Your task to perform on an android device: find snoozed emails in the gmail app Image 0: 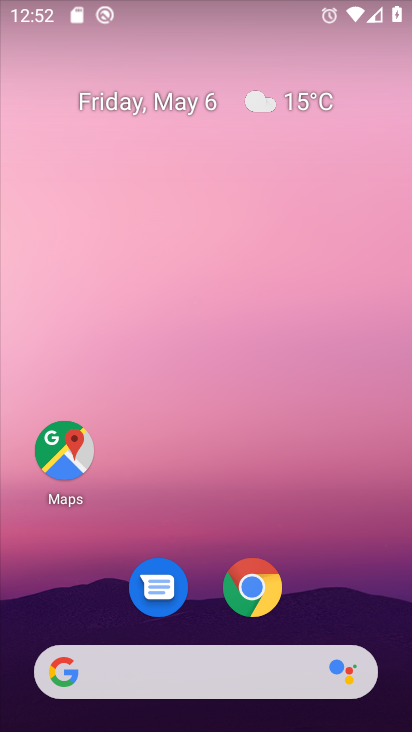
Step 0: drag from (325, 476) to (264, 41)
Your task to perform on an android device: find snoozed emails in the gmail app Image 1: 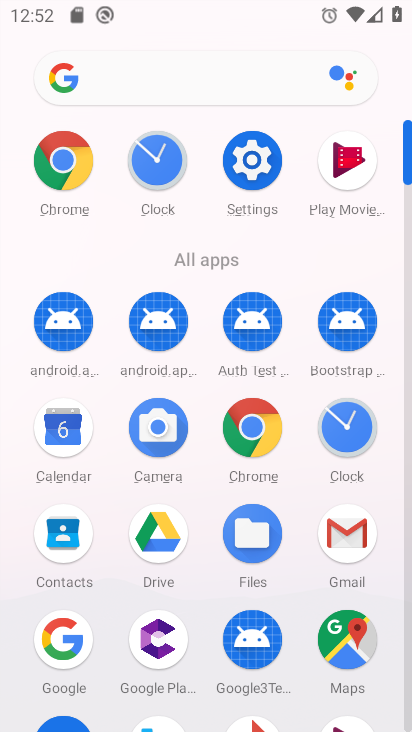
Step 1: click (340, 542)
Your task to perform on an android device: find snoozed emails in the gmail app Image 2: 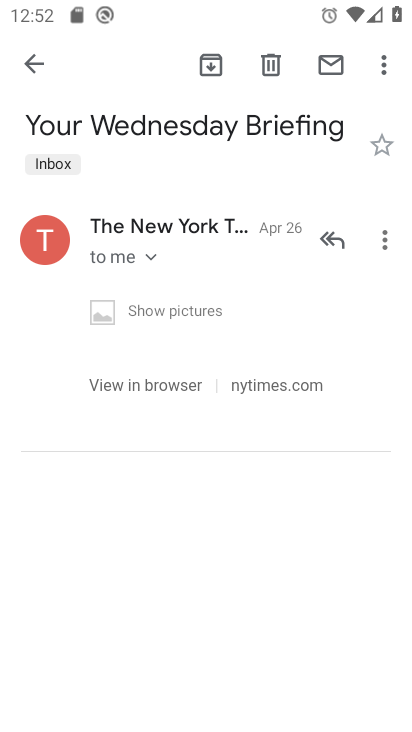
Step 2: click (35, 60)
Your task to perform on an android device: find snoozed emails in the gmail app Image 3: 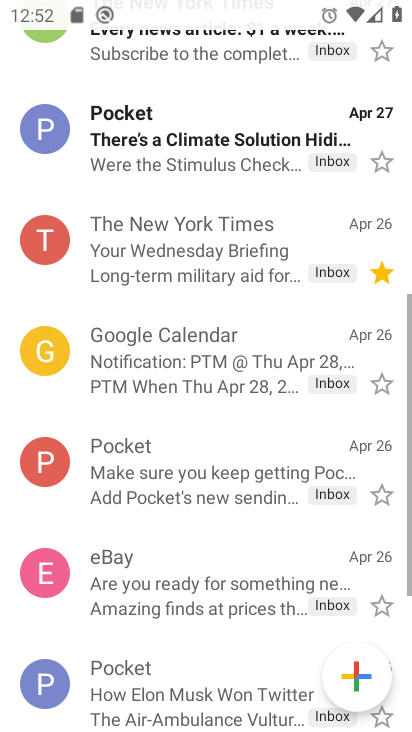
Step 3: drag from (197, 197) to (202, 686)
Your task to perform on an android device: find snoozed emails in the gmail app Image 4: 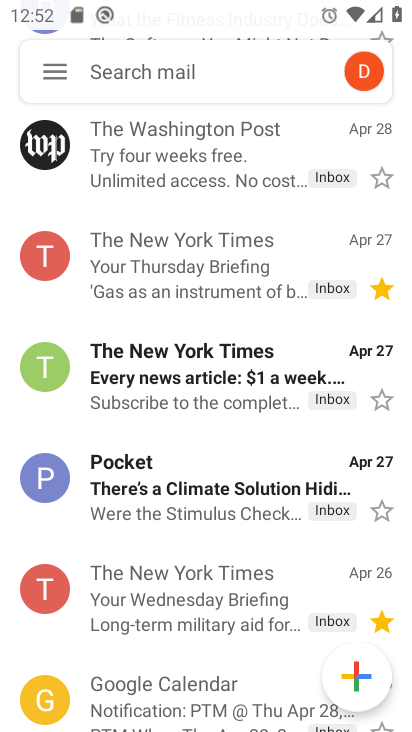
Step 4: drag from (253, 218) to (170, 677)
Your task to perform on an android device: find snoozed emails in the gmail app Image 5: 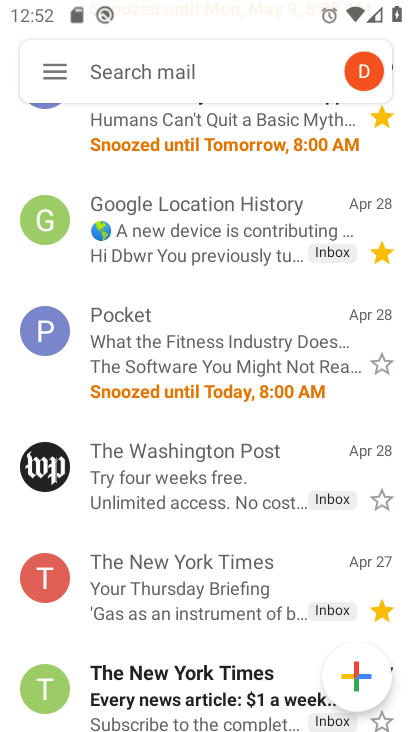
Step 5: click (200, 138)
Your task to perform on an android device: find snoozed emails in the gmail app Image 6: 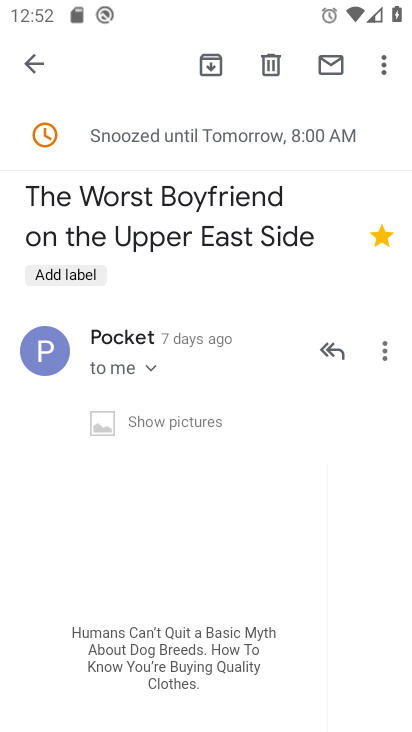
Step 6: task complete